Your task to perform on an android device: What's the weather today? Image 0: 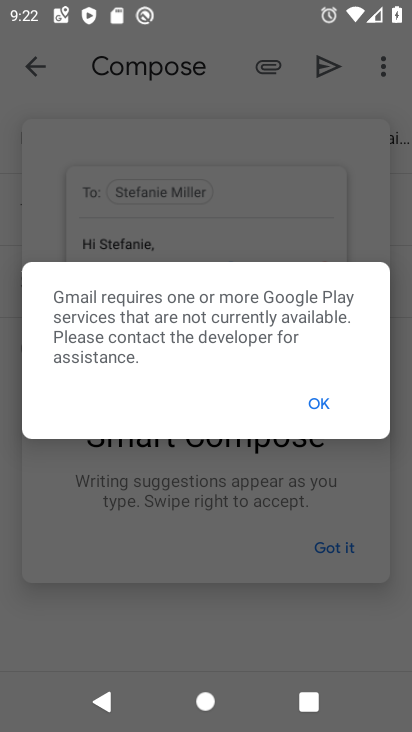
Step 0: click (328, 404)
Your task to perform on an android device: What's the weather today? Image 1: 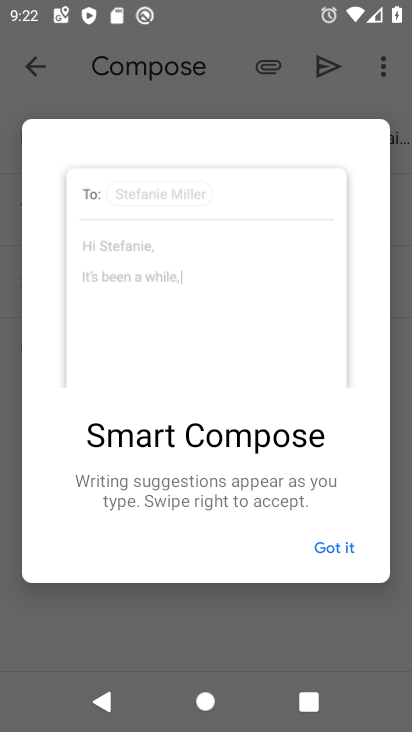
Step 1: press home button
Your task to perform on an android device: What's the weather today? Image 2: 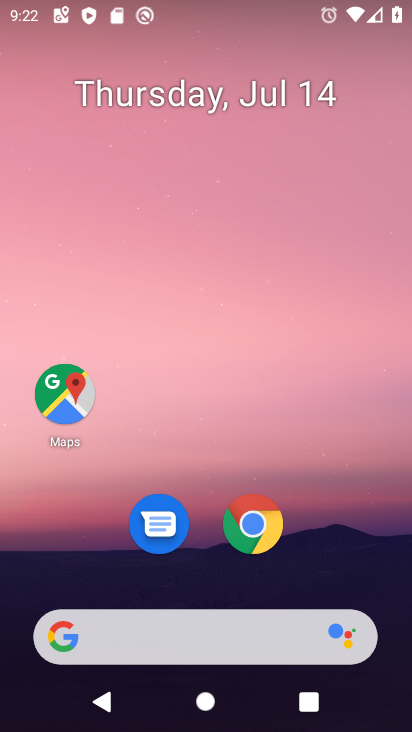
Step 2: click (227, 660)
Your task to perform on an android device: What's the weather today? Image 3: 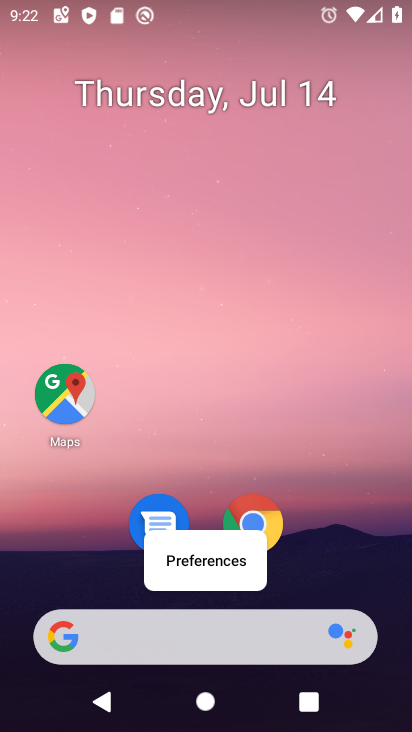
Step 3: click (216, 638)
Your task to perform on an android device: What's the weather today? Image 4: 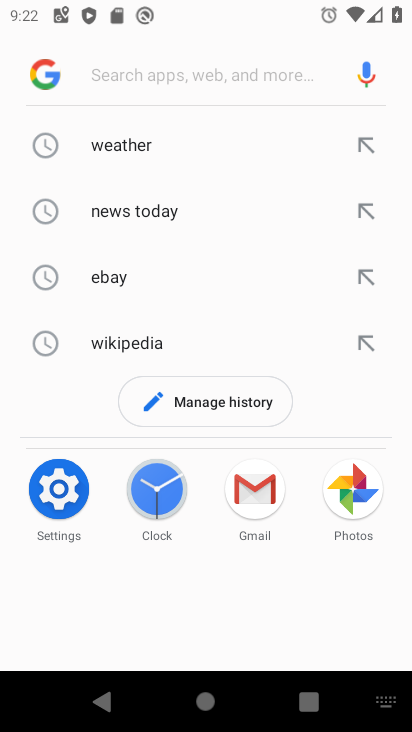
Step 4: click (130, 141)
Your task to perform on an android device: What's the weather today? Image 5: 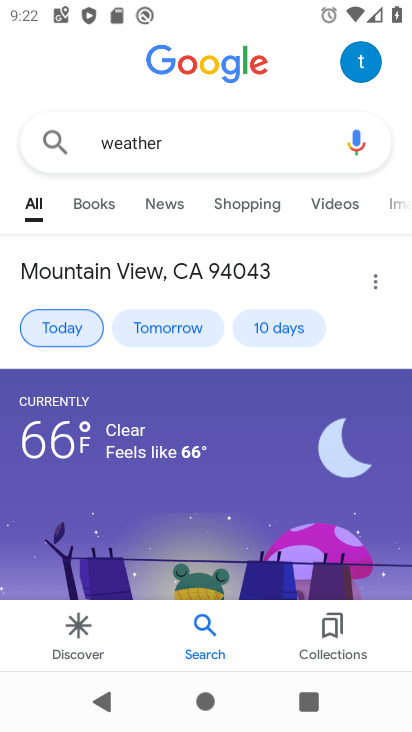
Step 5: click (61, 326)
Your task to perform on an android device: What's the weather today? Image 6: 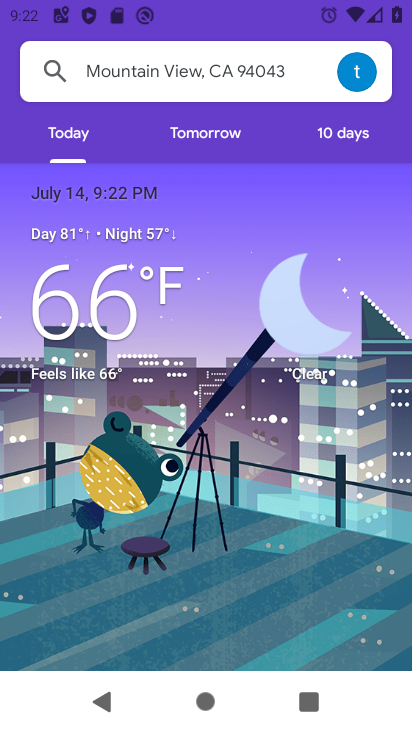
Step 6: task complete